Your task to perform on an android device: set the timer Image 0: 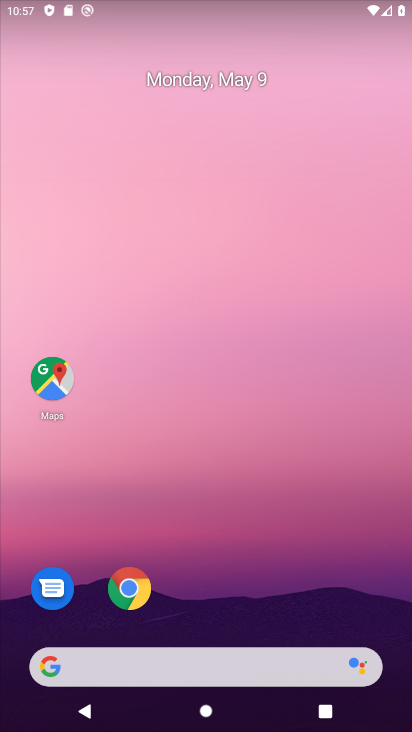
Step 0: drag from (181, 630) to (223, 26)
Your task to perform on an android device: set the timer Image 1: 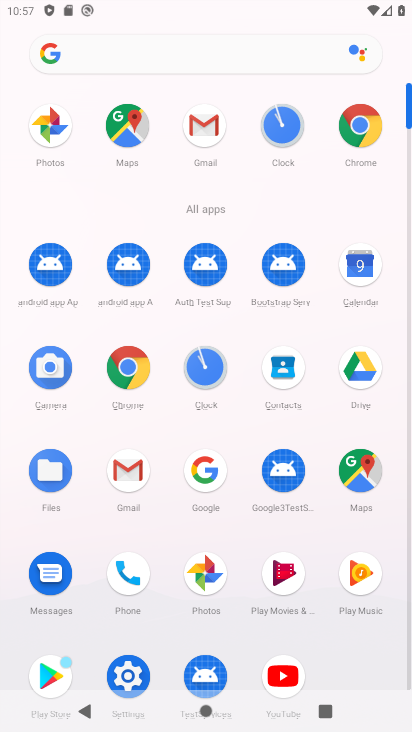
Step 1: click (203, 389)
Your task to perform on an android device: set the timer Image 2: 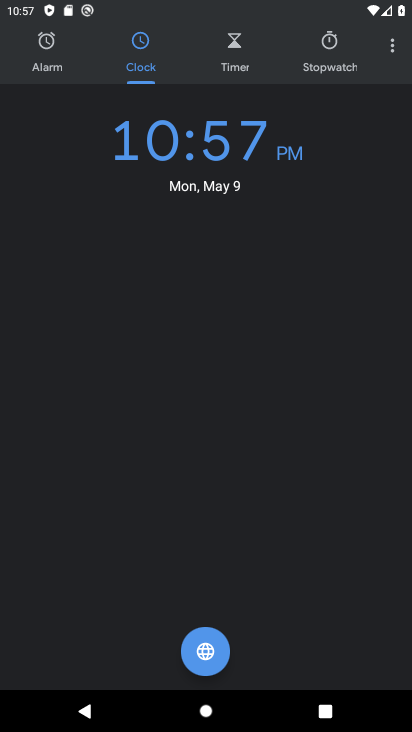
Step 2: click (240, 62)
Your task to perform on an android device: set the timer Image 3: 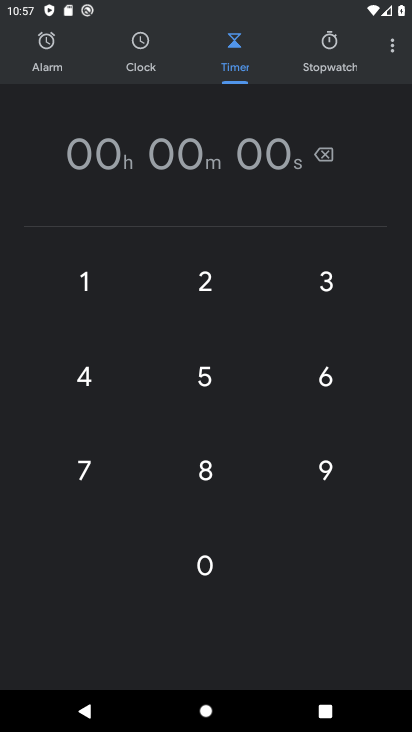
Step 3: click (249, 256)
Your task to perform on an android device: set the timer Image 4: 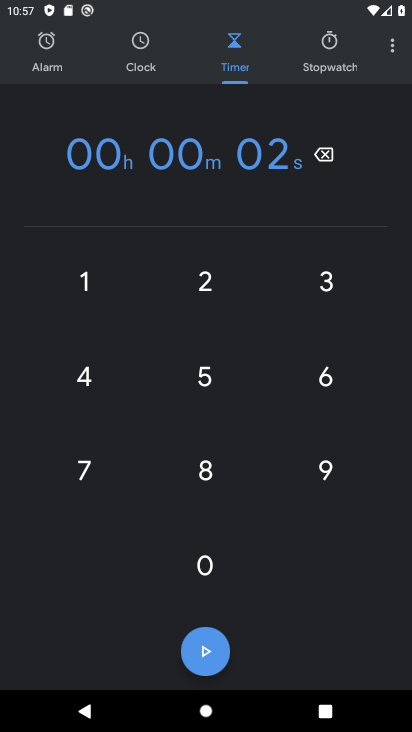
Step 4: click (241, 362)
Your task to perform on an android device: set the timer Image 5: 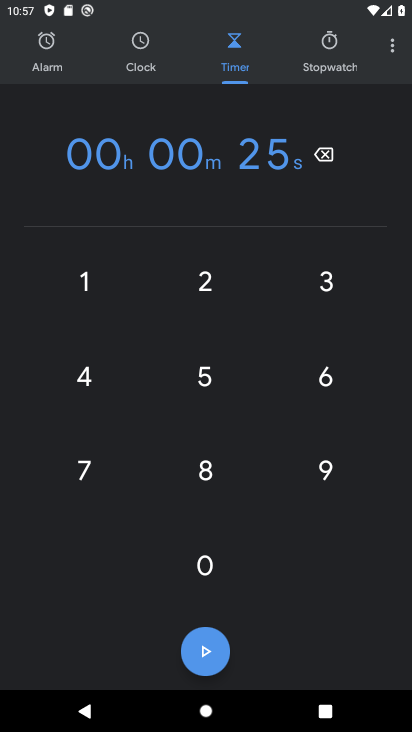
Step 5: click (234, 659)
Your task to perform on an android device: set the timer Image 6: 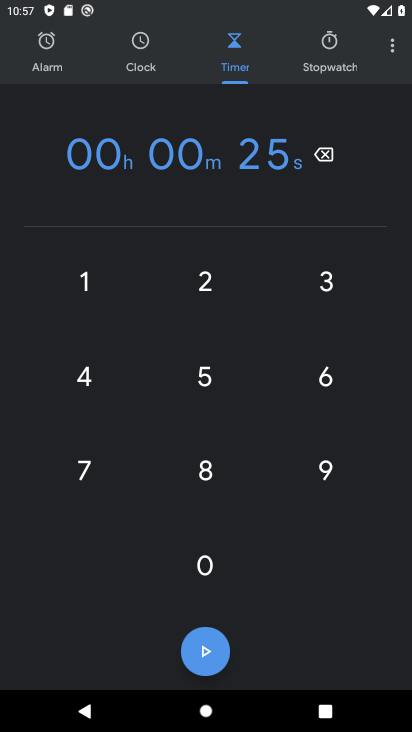
Step 6: task complete